Your task to perform on an android device: Go to Maps Image 0: 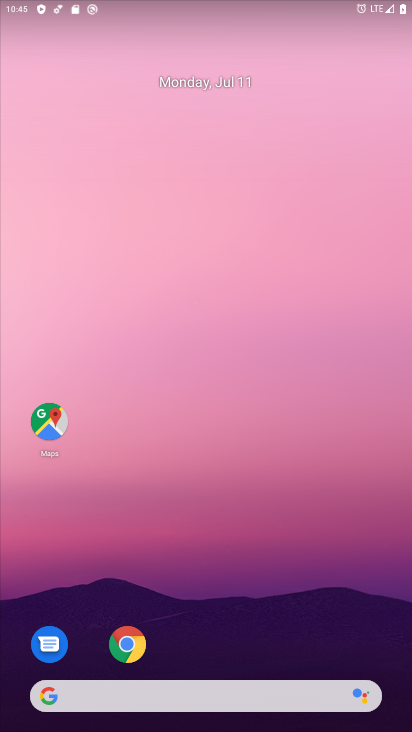
Step 0: click (50, 423)
Your task to perform on an android device: Go to Maps Image 1: 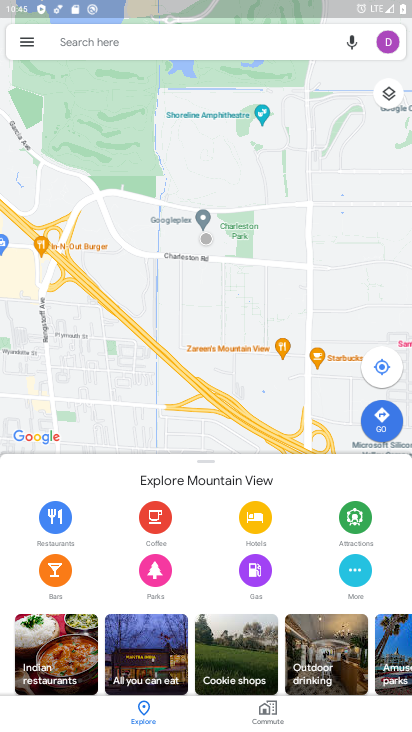
Step 1: task complete